Your task to perform on an android device: What's the news in Venezuela? Image 0: 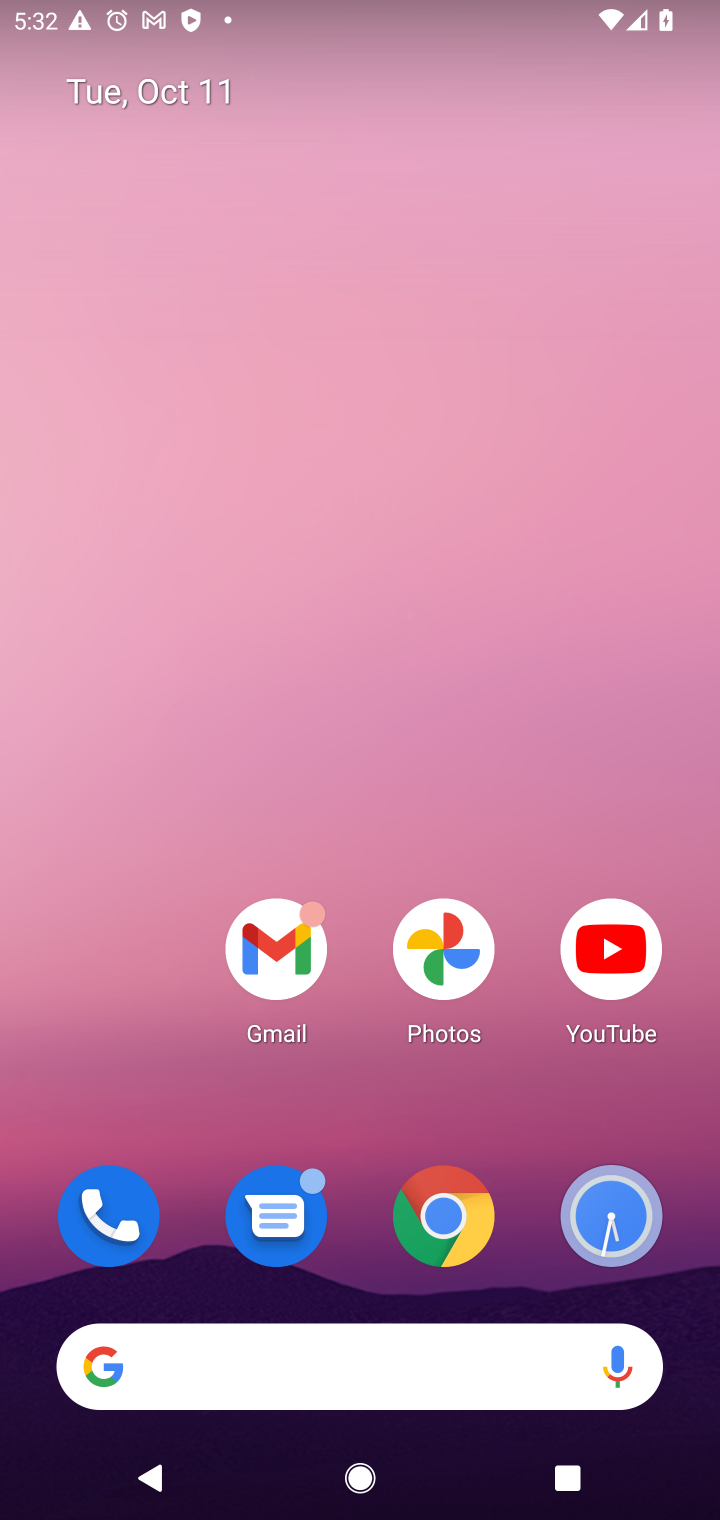
Step 0: click (421, 1252)
Your task to perform on an android device: What's the news in Venezuela? Image 1: 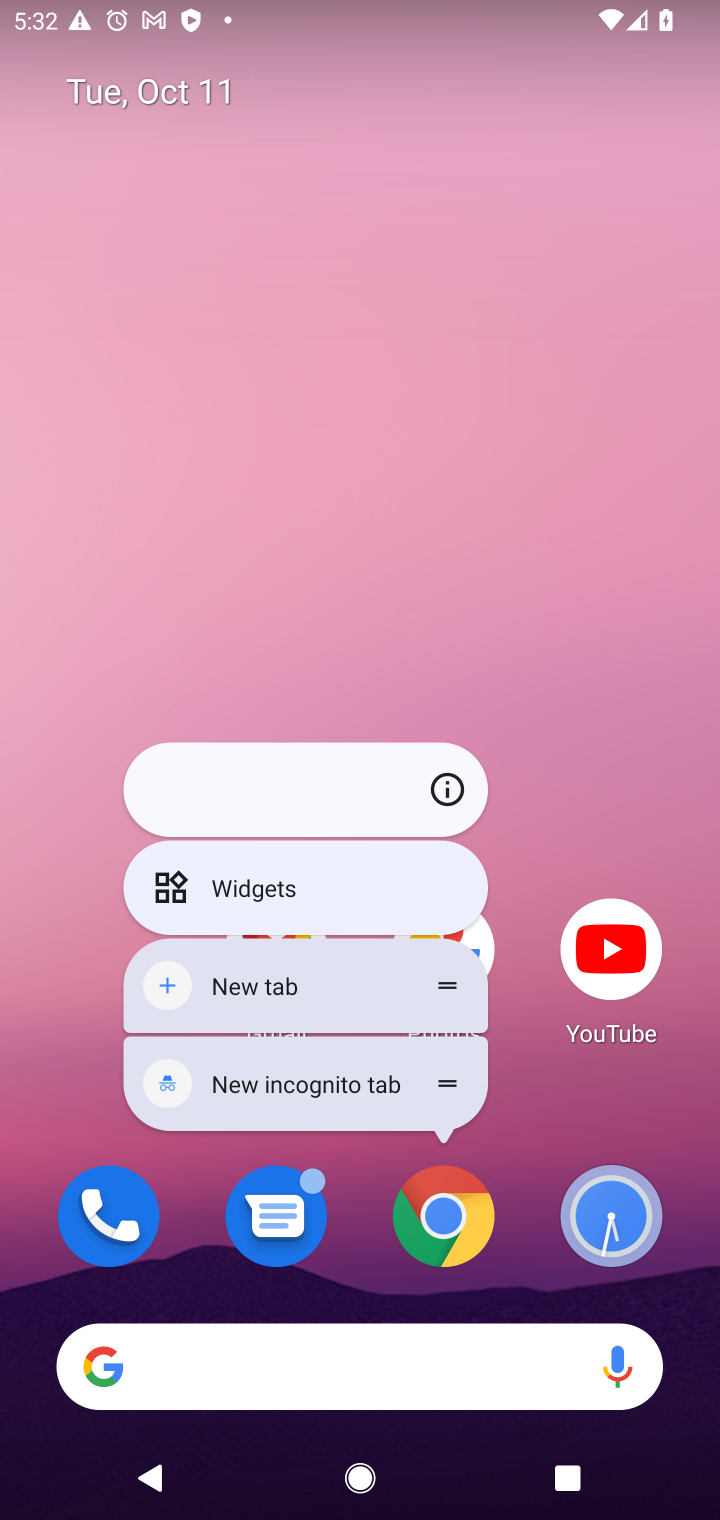
Step 1: click (459, 1237)
Your task to perform on an android device: What's the news in Venezuela? Image 2: 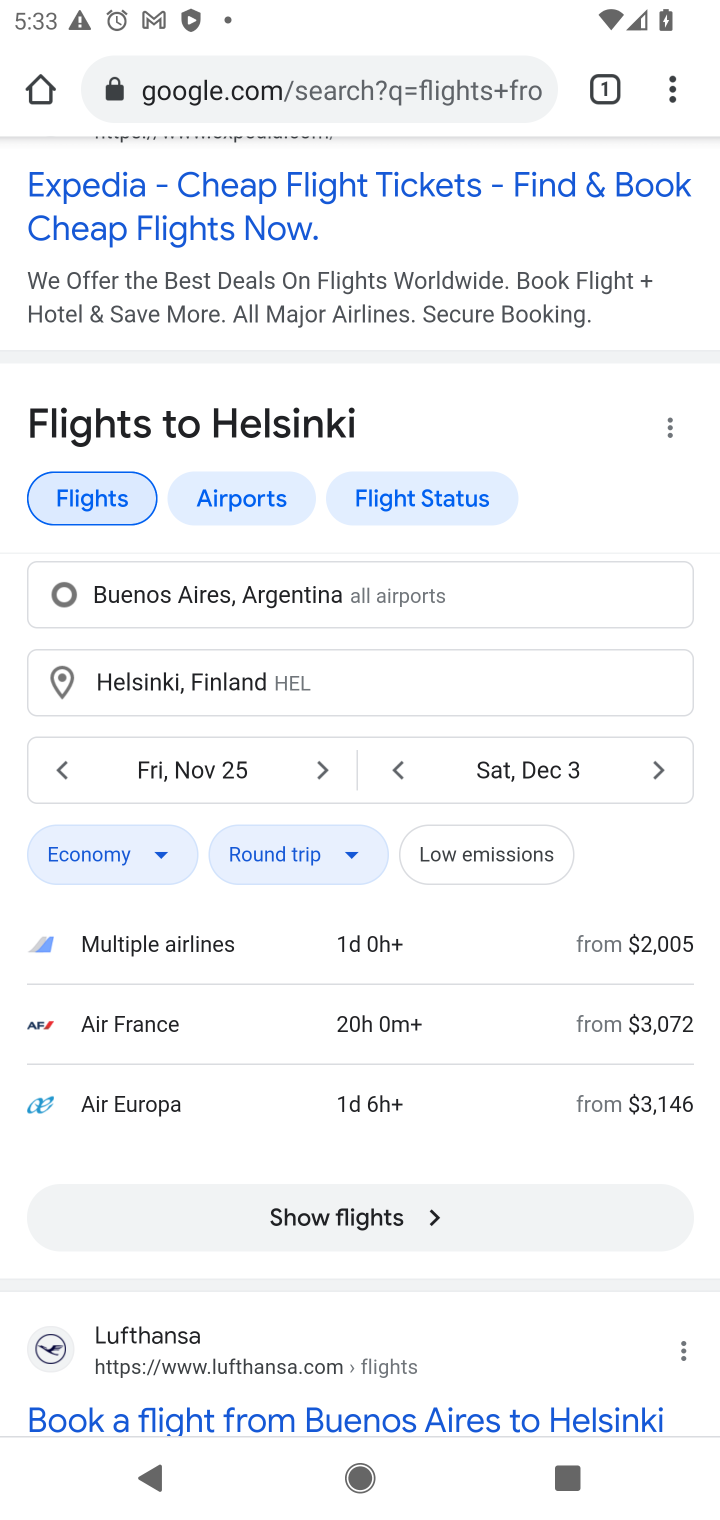
Step 2: click (358, 84)
Your task to perform on an android device: What's the news in Venezuela? Image 3: 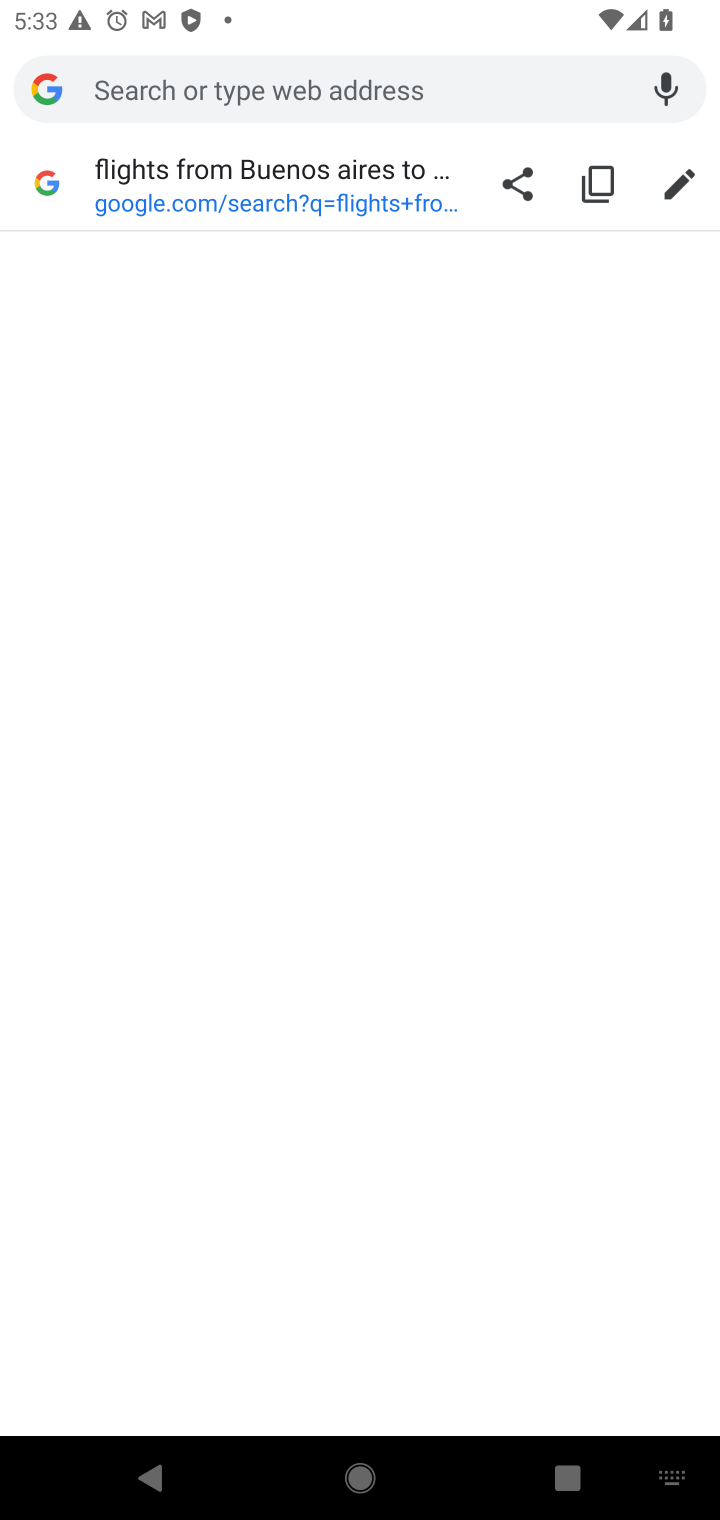
Step 3: type "What's the news in Venezuela?"
Your task to perform on an android device: What's the news in Venezuela? Image 4: 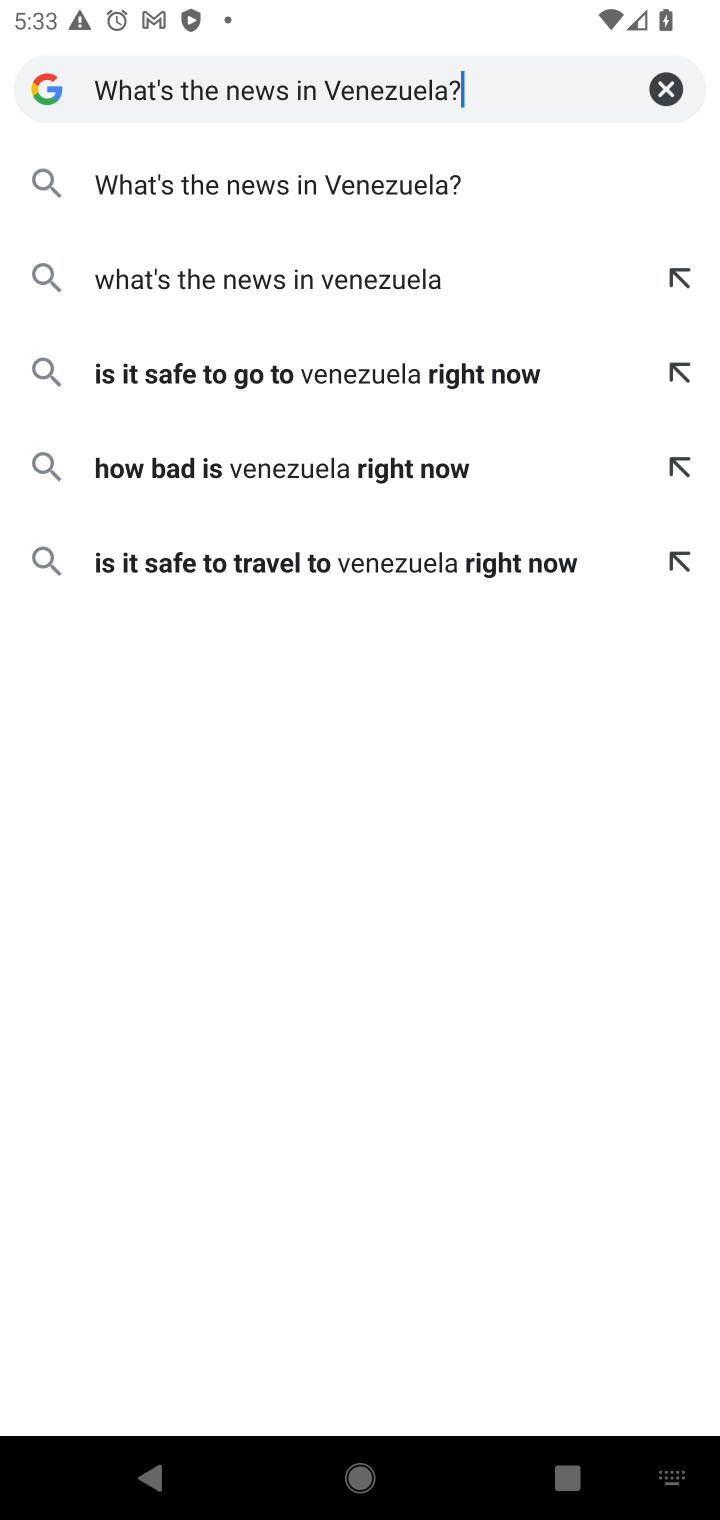
Step 4: click (393, 158)
Your task to perform on an android device: What's the news in Venezuela? Image 5: 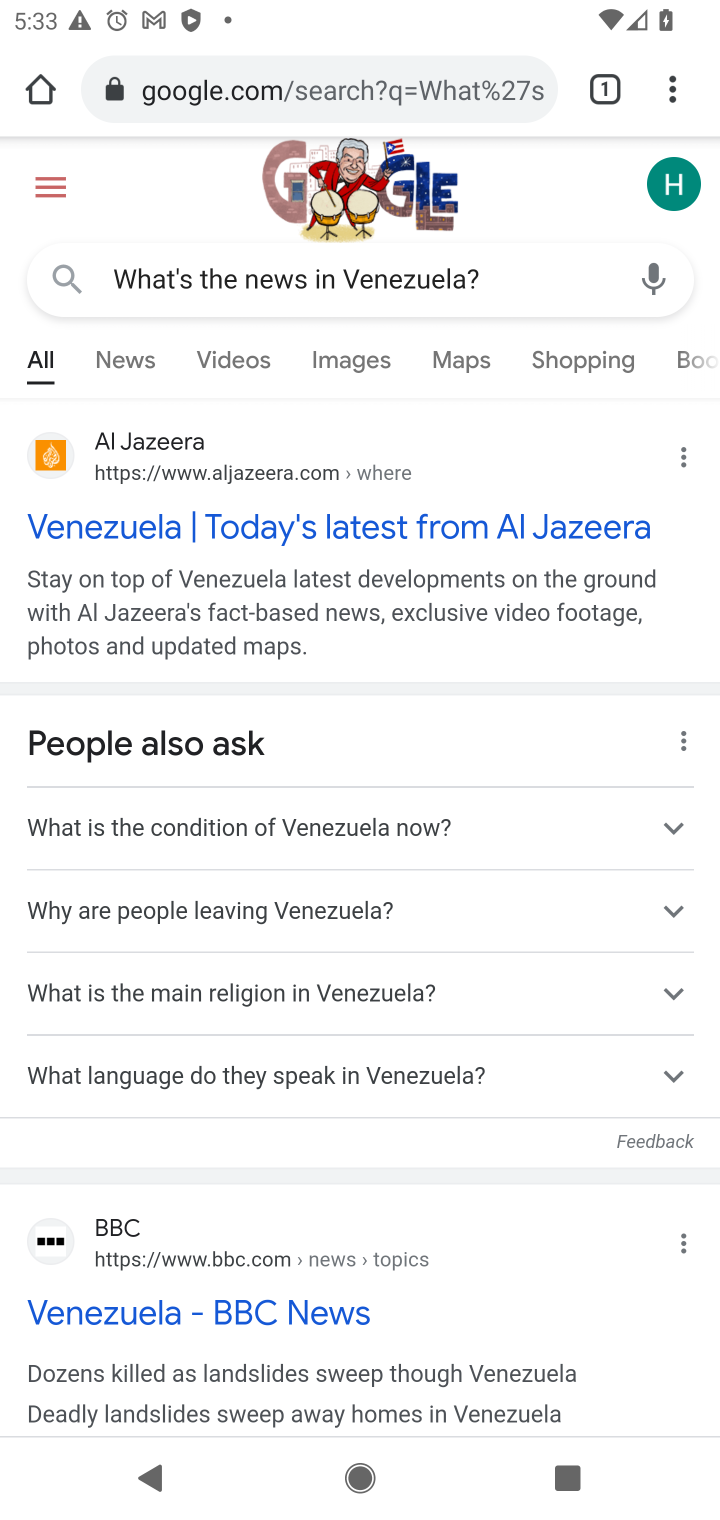
Step 5: click (111, 336)
Your task to perform on an android device: What's the news in Venezuela? Image 6: 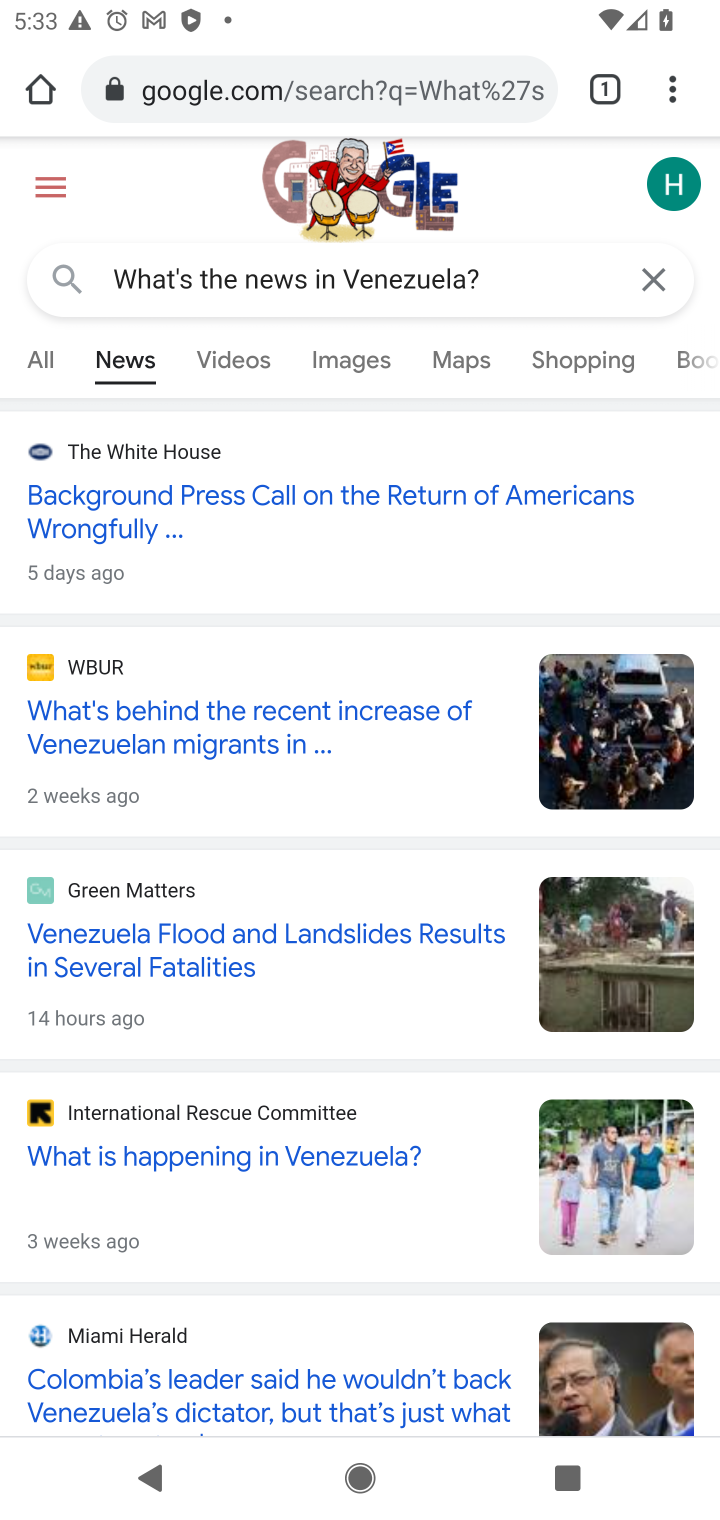
Step 6: task complete